Your task to perform on an android device: change the clock display to show seconds Image 0: 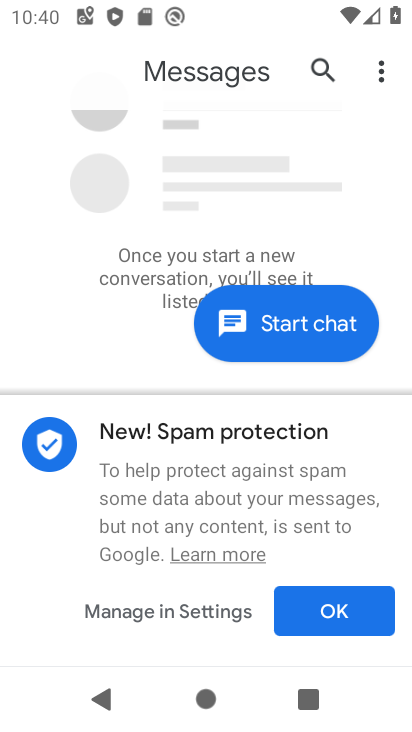
Step 0: press home button
Your task to perform on an android device: change the clock display to show seconds Image 1: 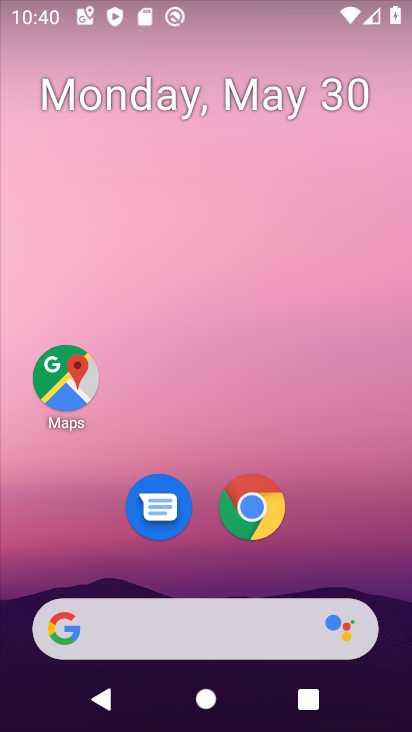
Step 1: drag from (394, 631) to (214, 165)
Your task to perform on an android device: change the clock display to show seconds Image 2: 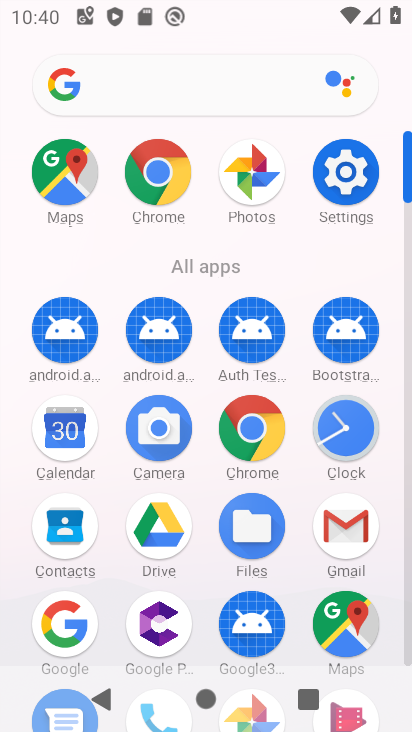
Step 2: click (341, 423)
Your task to perform on an android device: change the clock display to show seconds Image 3: 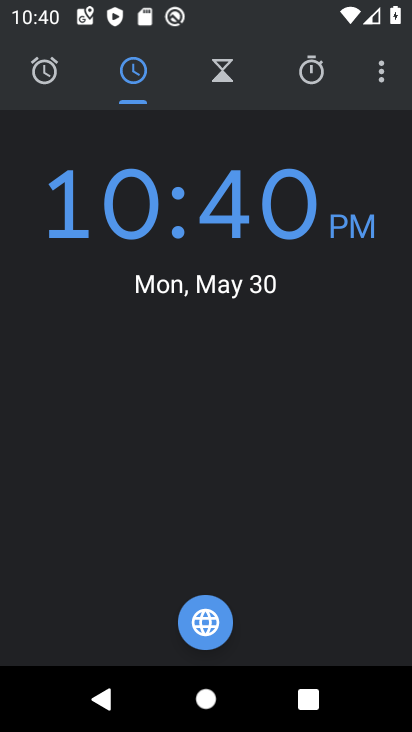
Step 3: click (383, 71)
Your task to perform on an android device: change the clock display to show seconds Image 4: 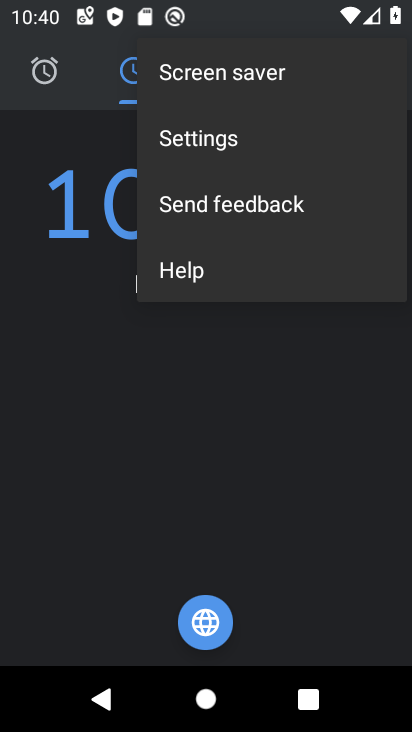
Step 4: click (255, 145)
Your task to perform on an android device: change the clock display to show seconds Image 5: 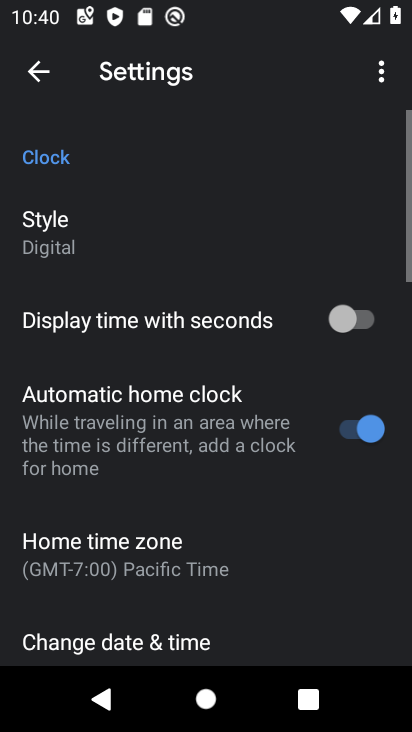
Step 5: click (337, 319)
Your task to perform on an android device: change the clock display to show seconds Image 6: 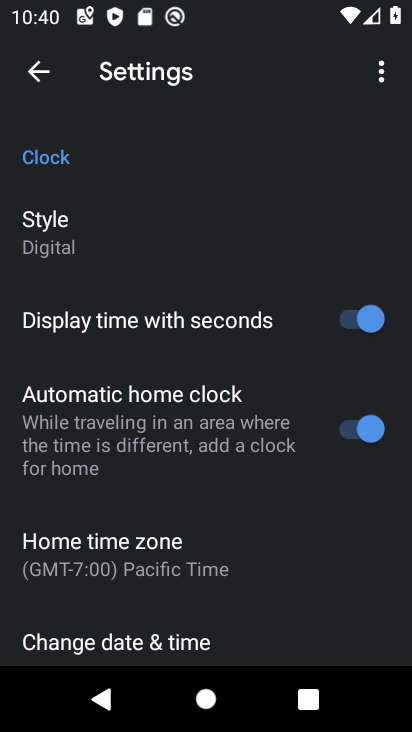
Step 6: task complete